Your task to perform on an android device: Open eBay Image 0: 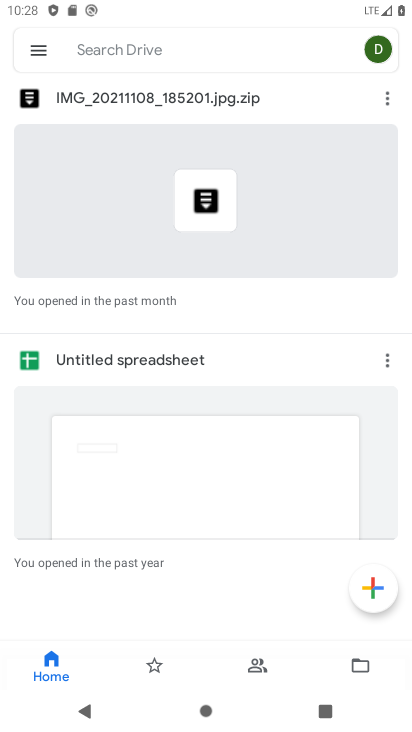
Step 0: press home button
Your task to perform on an android device: Open eBay Image 1: 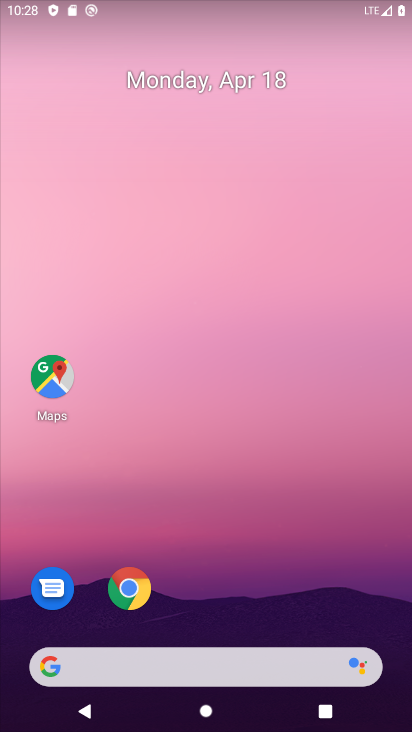
Step 1: click (127, 586)
Your task to perform on an android device: Open eBay Image 2: 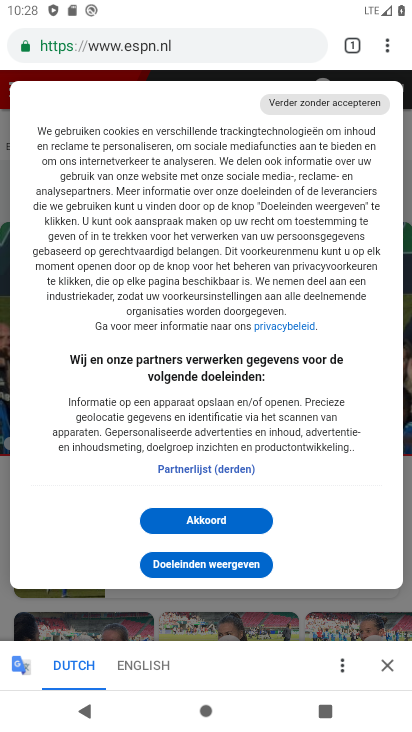
Step 2: click (101, 49)
Your task to perform on an android device: Open eBay Image 3: 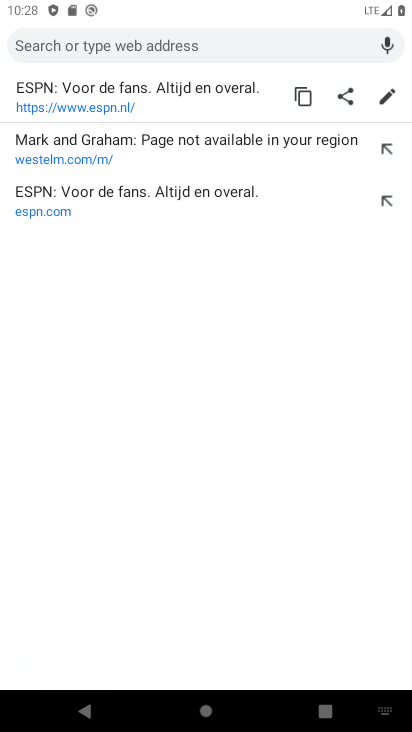
Step 3: type "ebay"
Your task to perform on an android device: Open eBay Image 4: 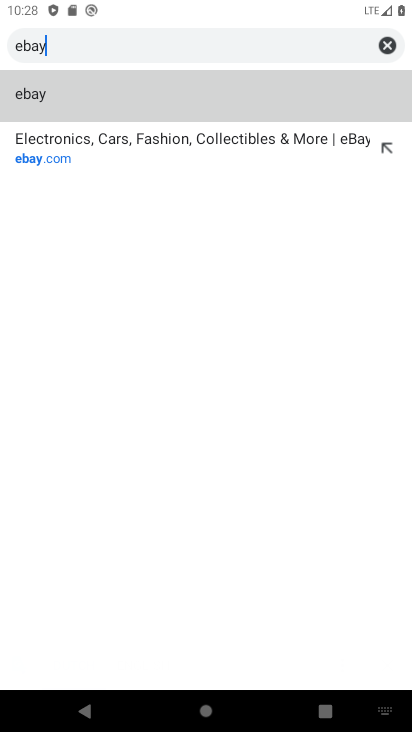
Step 4: click (39, 145)
Your task to perform on an android device: Open eBay Image 5: 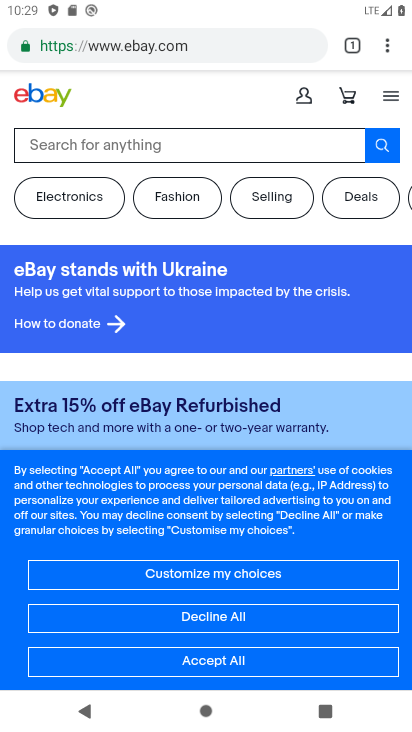
Step 5: task complete